Your task to perform on an android device: Search for sushi restaurants on Maps Image 0: 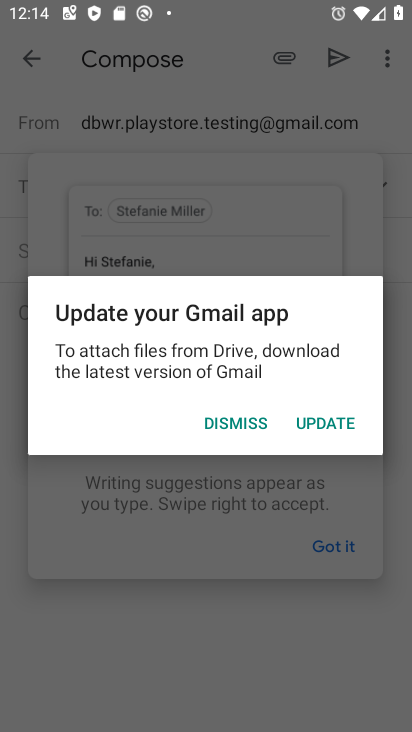
Step 0: press home button
Your task to perform on an android device: Search for sushi restaurants on Maps Image 1: 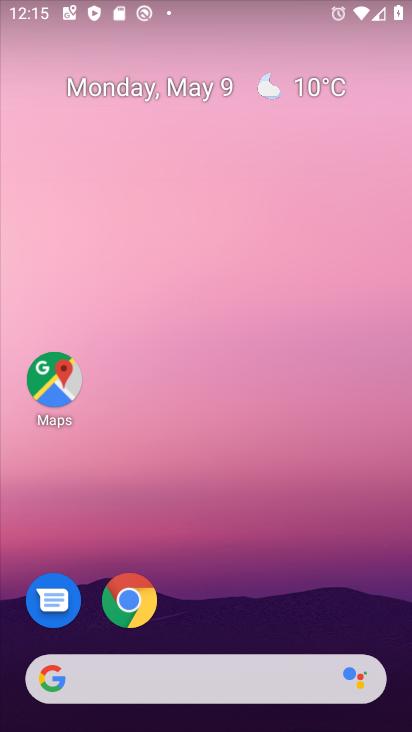
Step 1: click (51, 375)
Your task to perform on an android device: Search for sushi restaurants on Maps Image 2: 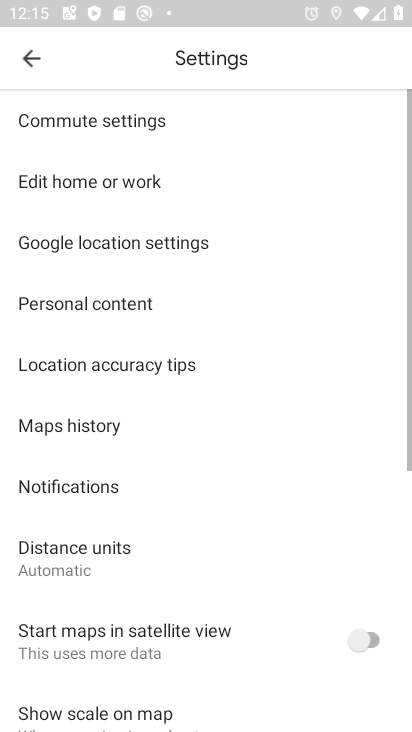
Step 2: click (37, 65)
Your task to perform on an android device: Search for sushi restaurants on Maps Image 3: 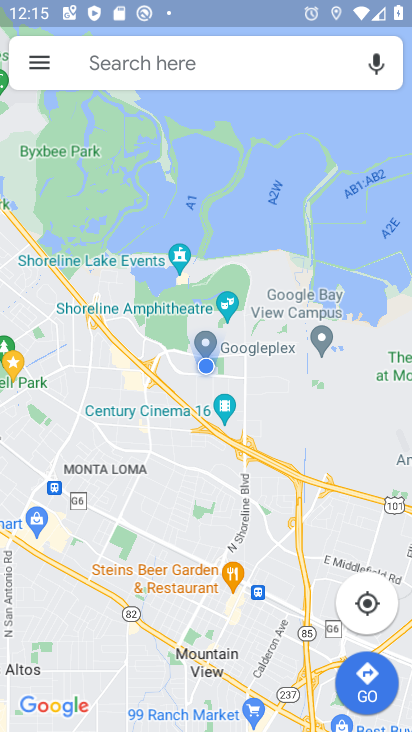
Step 3: click (115, 64)
Your task to perform on an android device: Search for sushi restaurants on Maps Image 4: 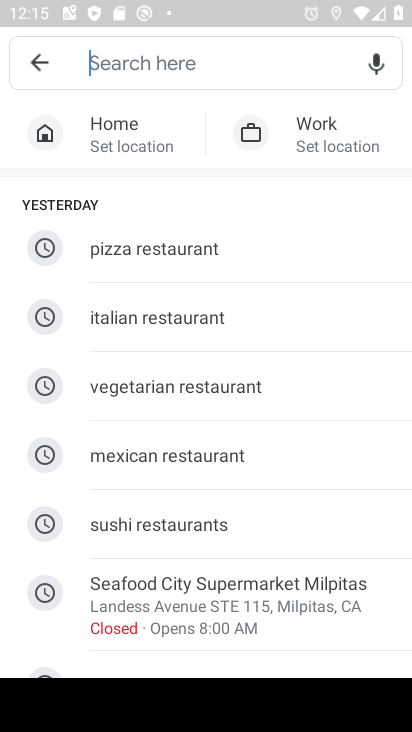
Step 4: type "sushi restaurants"
Your task to perform on an android device: Search for sushi restaurants on Maps Image 5: 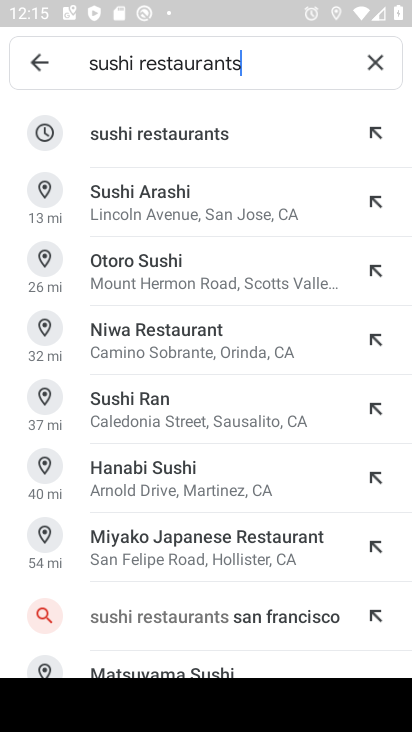
Step 5: click (179, 142)
Your task to perform on an android device: Search for sushi restaurants on Maps Image 6: 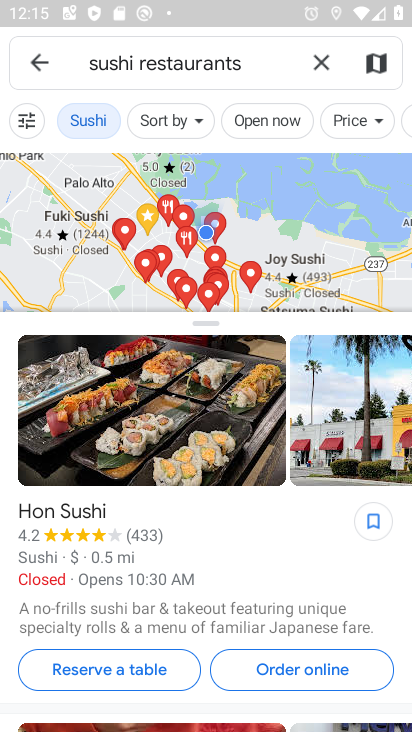
Step 6: task complete